Your task to perform on an android device: turn on bluetooth scan Image 0: 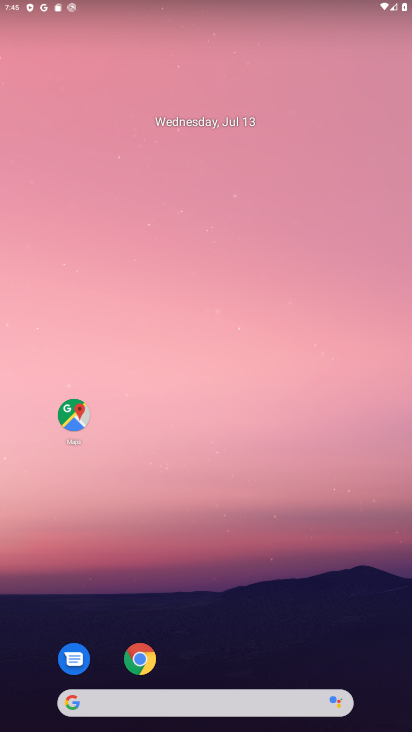
Step 0: drag from (299, 655) to (281, 233)
Your task to perform on an android device: turn on bluetooth scan Image 1: 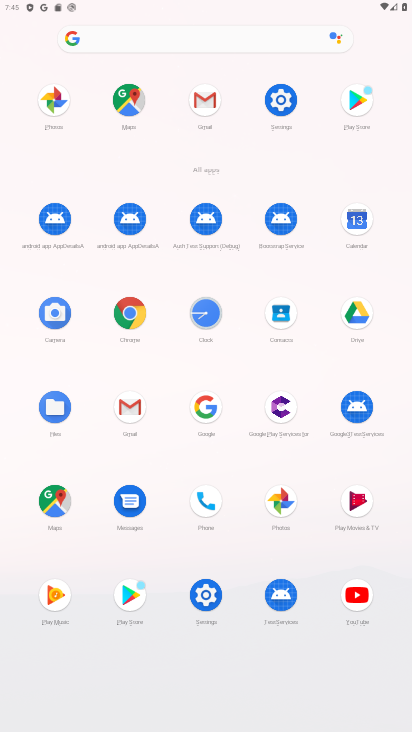
Step 1: click (255, 103)
Your task to perform on an android device: turn on bluetooth scan Image 2: 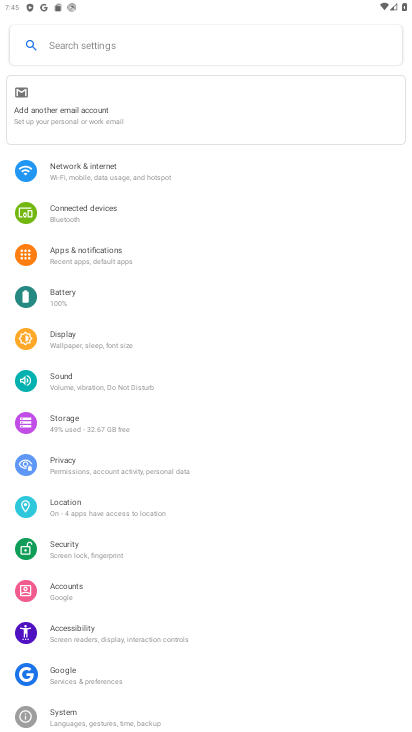
Step 2: click (176, 518)
Your task to perform on an android device: turn on bluetooth scan Image 3: 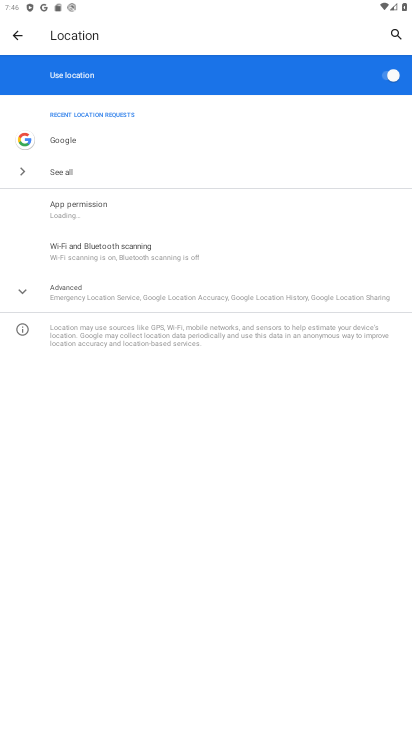
Step 3: click (263, 290)
Your task to perform on an android device: turn on bluetooth scan Image 4: 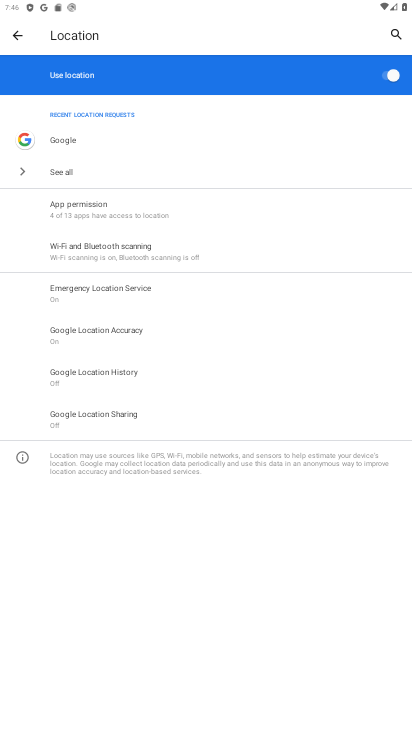
Step 4: click (241, 269)
Your task to perform on an android device: turn on bluetooth scan Image 5: 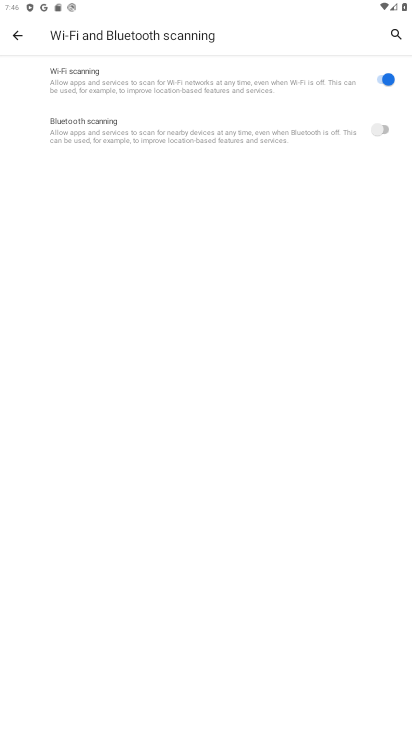
Step 5: click (373, 144)
Your task to perform on an android device: turn on bluetooth scan Image 6: 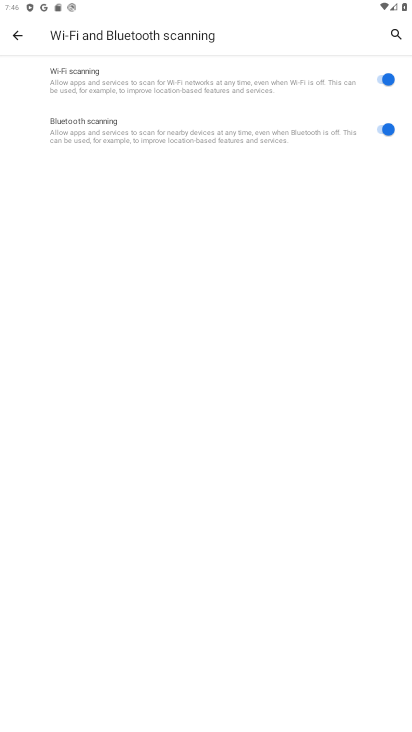
Step 6: task complete